Your task to perform on an android device: check data usage Image 0: 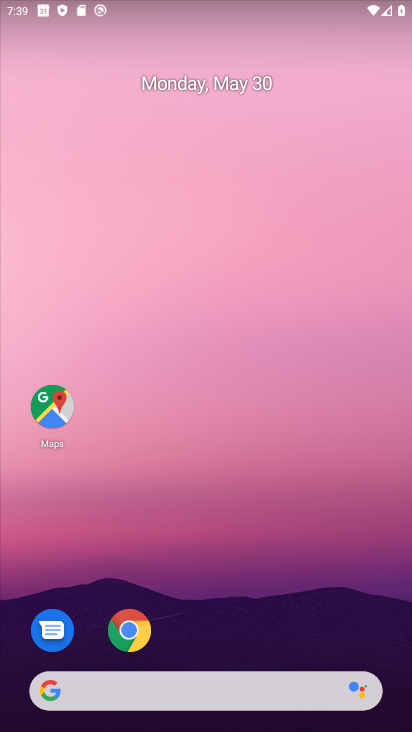
Step 0: drag from (224, 682) to (351, 209)
Your task to perform on an android device: check data usage Image 1: 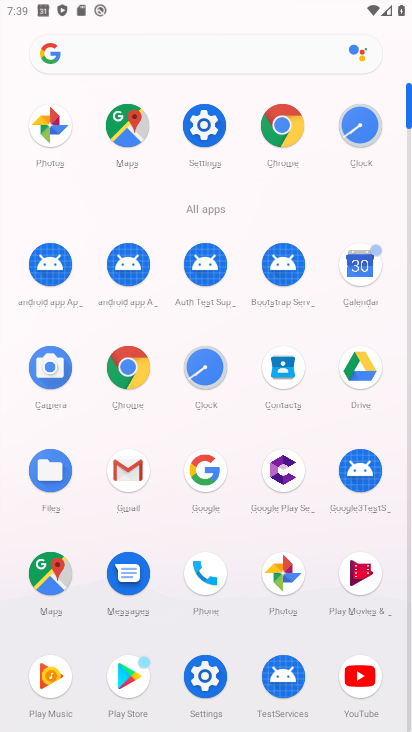
Step 1: click (212, 122)
Your task to perform on an android device: check data usage Image 2: 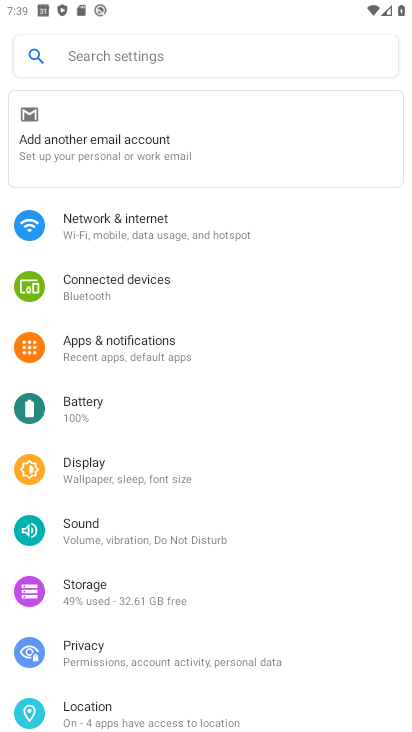
Step 2: click (122, 228)
Your task to perform on an android device: check data usage Image 3: 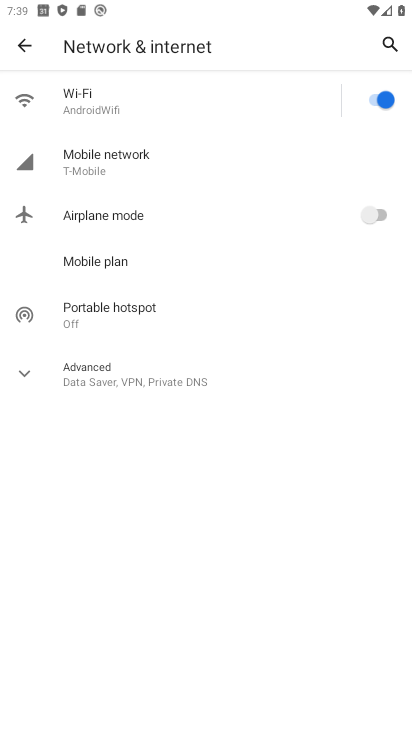
Step 3: click (113, 384)
Your task to perform on an android device: check data usage Image 4: 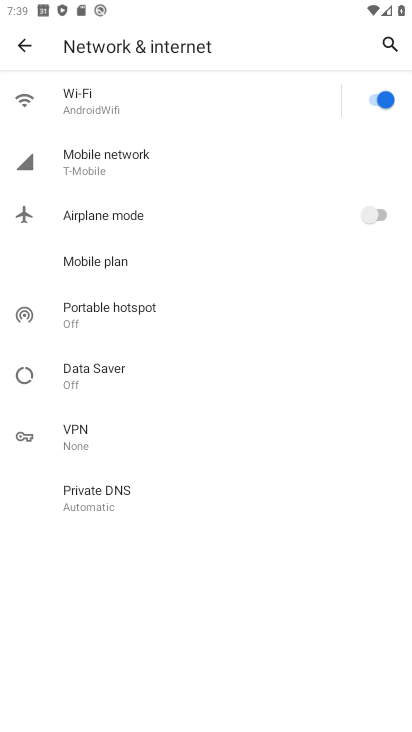
Step 4: click (95, 106)
Your task to perform on an android device: check data usage Image 5: 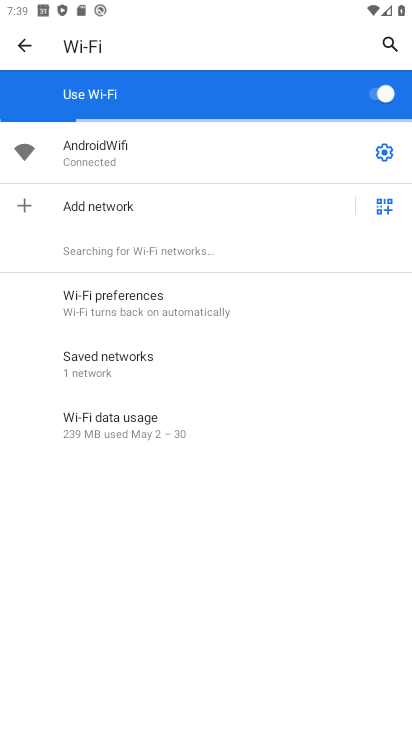
Step 5: click (134, 419)
Your task to perform on an android device: check data usage Image 6: 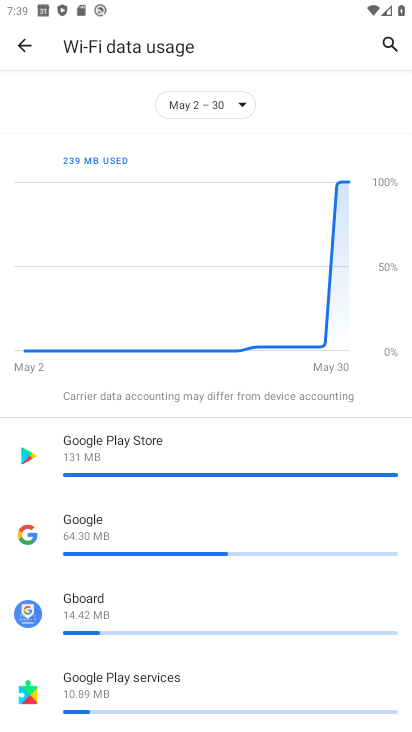
Step 6: task complete